Your task to perform on an android device: Open Chrome and go to settings Image 0: 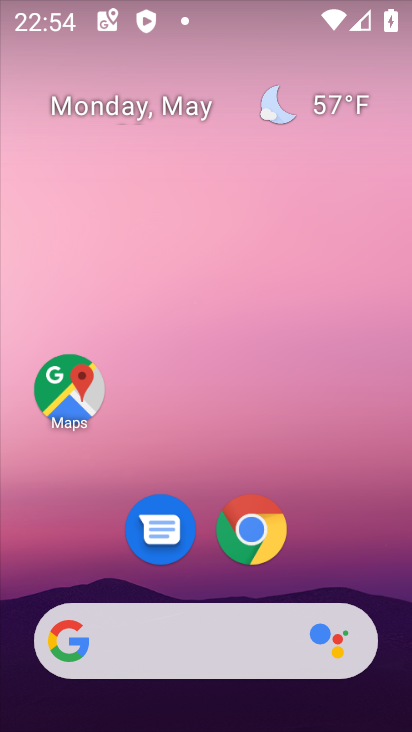
Step 0: click (250, 527)
Your task to perform on an android device: Open Chrome and go to settings Image 1: 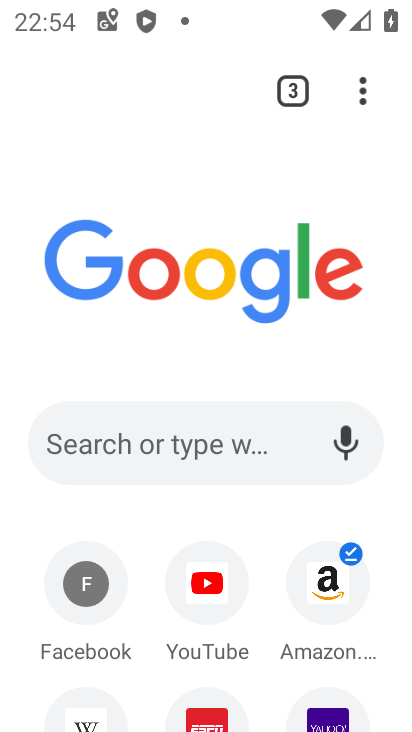
Step 1: click (363, 100)
Your task to perform on an android device: Open Chrome and go to settings Image 2: 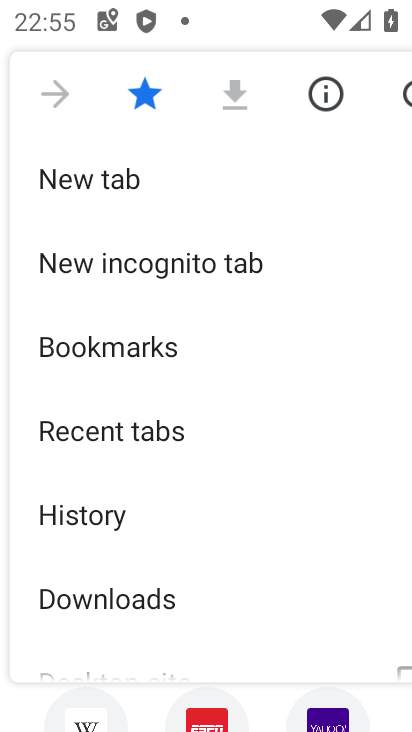
Step 2: drag from (237, 657) to (238, 181)
Your task to perform on an android device: Open Chrome and go to settings Image 3: 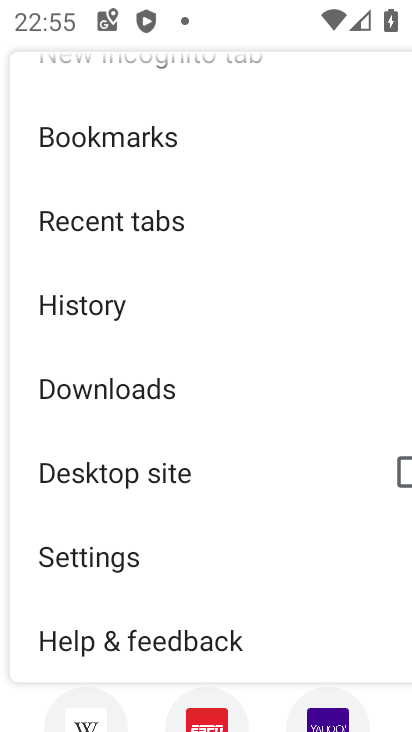
Step 3: click (105, 557)
Your task to perform on an android device: Open Chrome and go to settings Image 4: 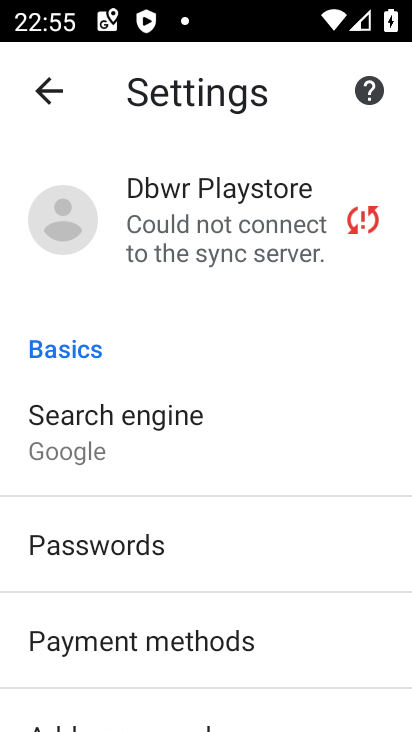
Step 4: task complete